Your task to perform on an android device: change keyboard looks Image 0: 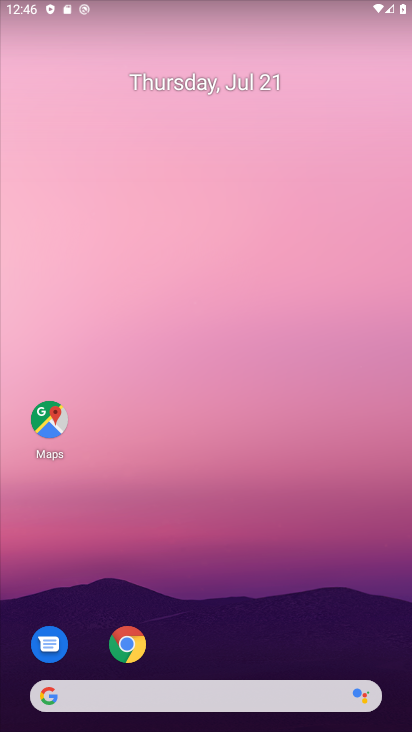
Step 0: drag from (316, 604) to (360, 15)
Your task to perform on an android device: change keyboard looks Image 1: 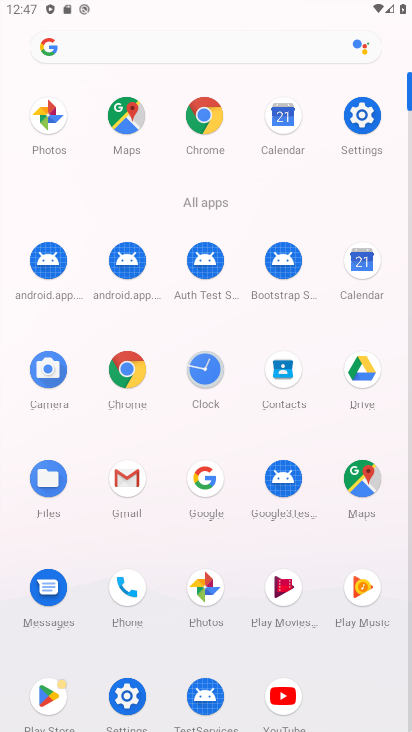
Step 1: click (133, 704)
Your task to perform on an android device: change keyboard looks Image 2: 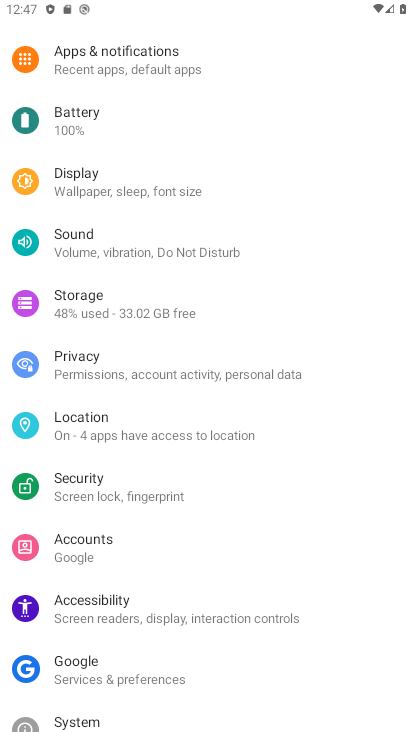
Step 2: drag from (206, 620) to (225, 254)
Your task to perform on an android device: change keyboard looks Image 3: 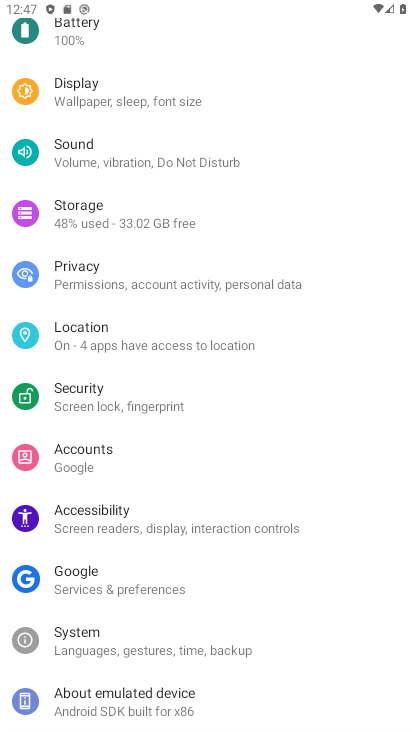
Step 3: drag from (113, 347) to (146, 730)
Your task to perform on an android device: change keyboard looks Image 4: 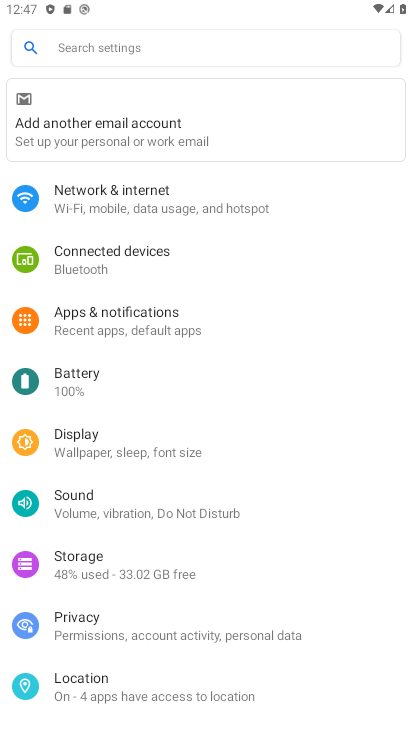
Step 4: drag from (99, 607) to (108, 477)
Your task to perform on an android device: change keyboard looks Image 5: 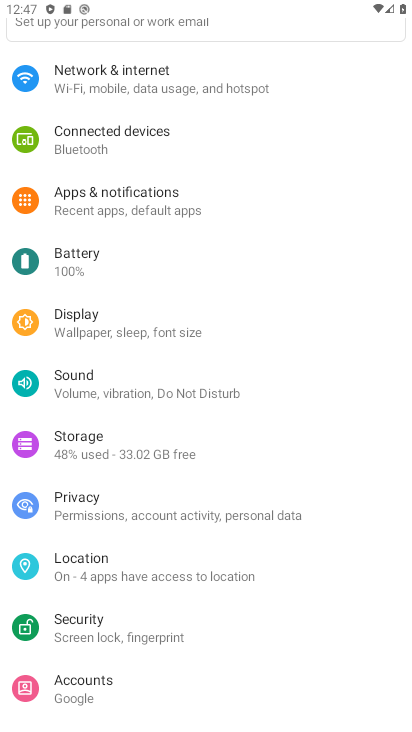
Step 5: drag from (173, 584) to (164, 353)
Your task to perform on an android device: change keyboard looks Image 6: 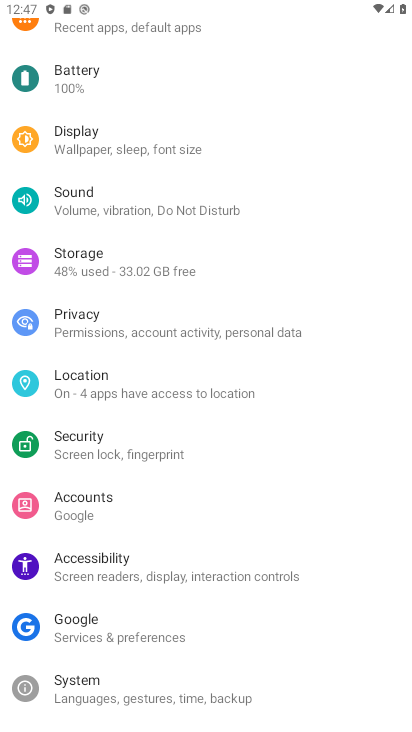
Step 6: click (138, 697)
Your task to perform on an android device: change keyboard looks Image 7: 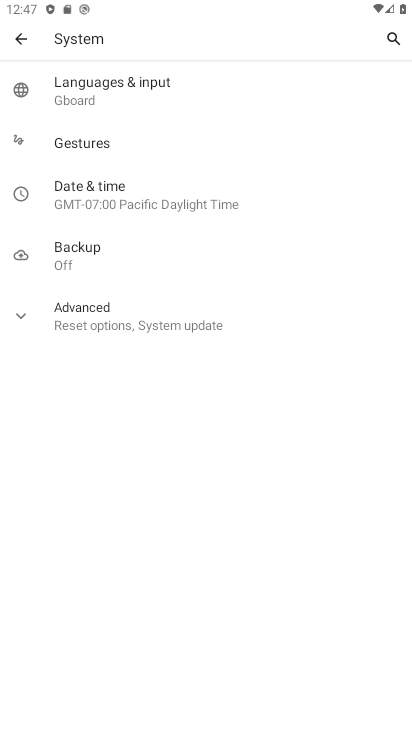
Step 7: click (172, 82)
Your task to perform on an android device: change keyboard looks Image 8: 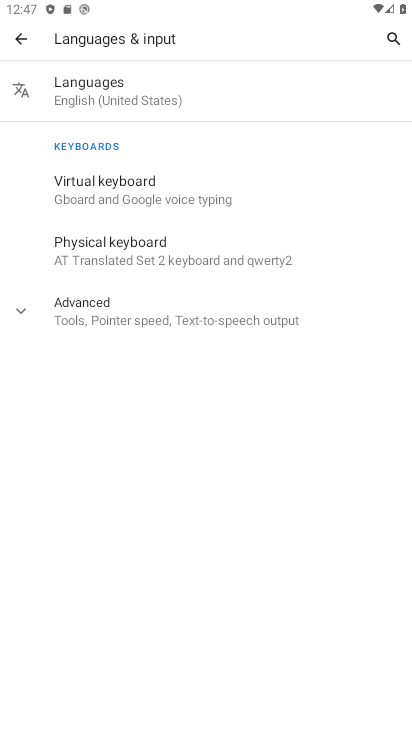
Step 8: click (35, 201)
Your task to perform on an android device: change keyboard looks Image 9: 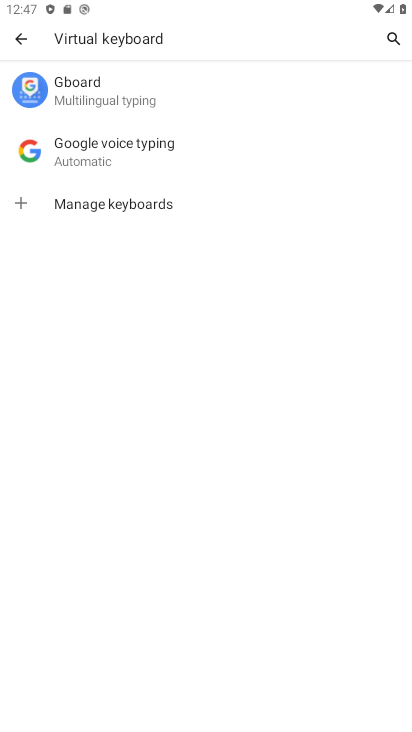
Step 9: click (61, 75)
Your task to perform on an android device: change keyboard looks Image 10: 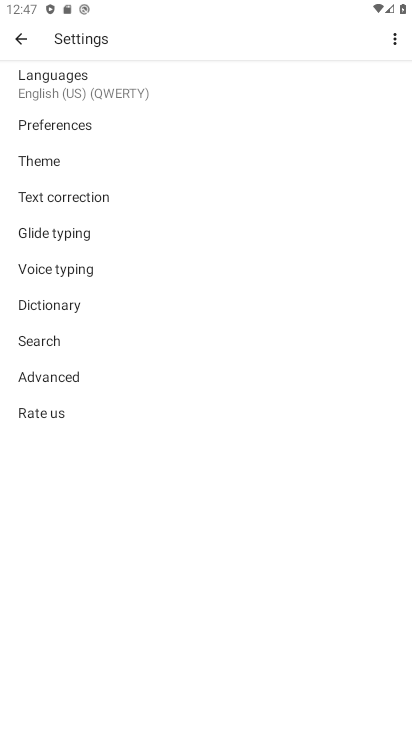
Step 10: click (80, 157)
Your task to perform on an android device: change keyboard looks Image 11: 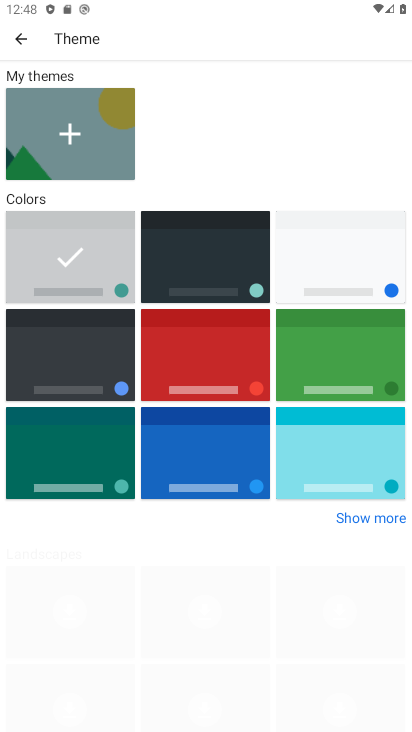
Step 11: click (211, 302)
Your task to perform on an android device: change keyboard looks Image 12: 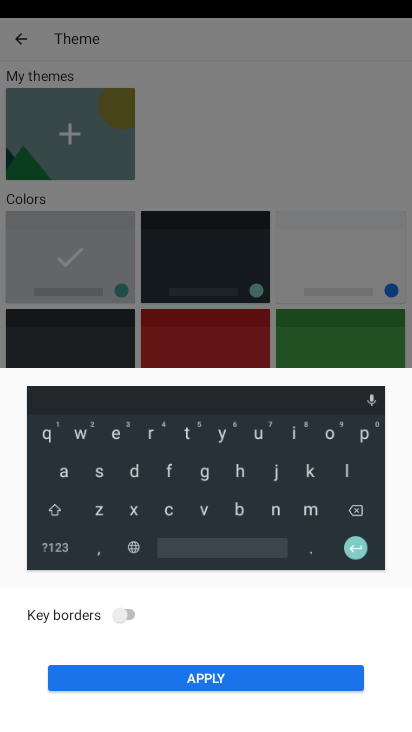
Step 12: click (204, 674)
Your task to perform on an android device: change keyboard looks Image 13: 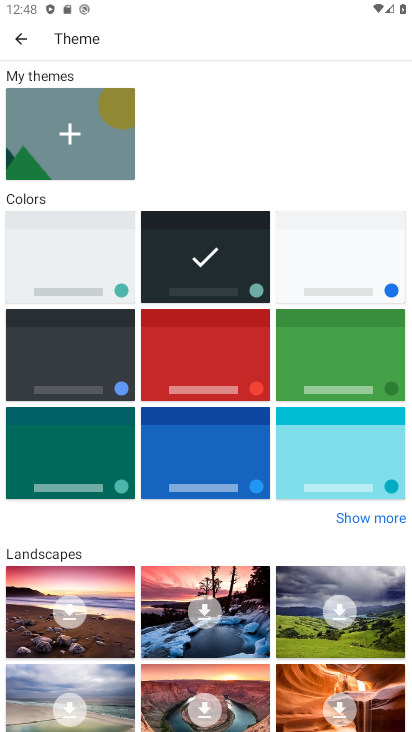
Step 13: task complete